Your task to perform on an android device: Open Google Chrome and open the bookmarks view Image 0: 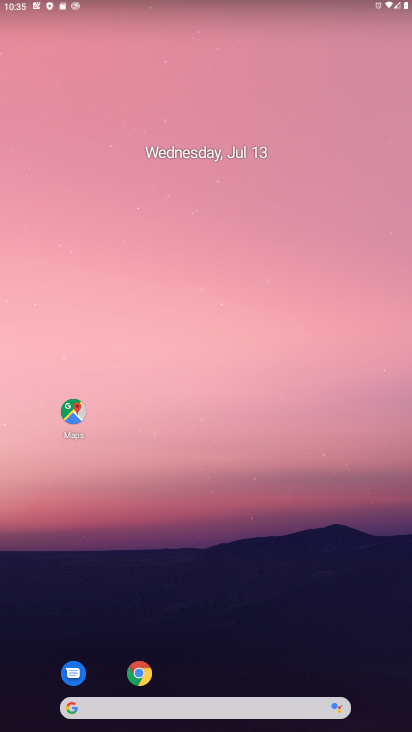
Step 0: click (140, 680)
Your task to perform on an android device: Open Google Chrome and open the bookmarks view Image 1: 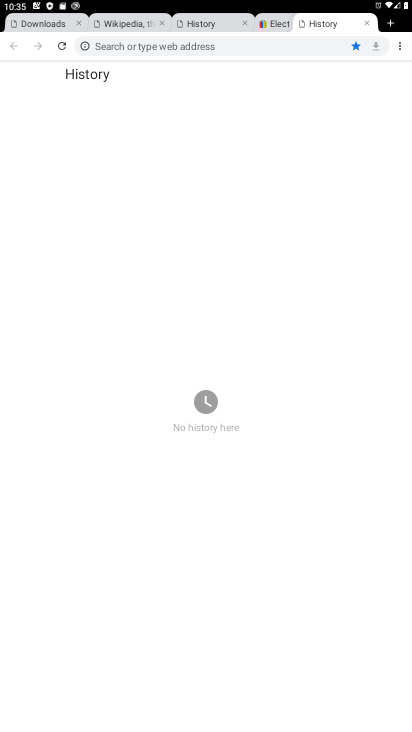
Step 1: click (402, 49)
Your task to perform on an android device: Open Google Chrome and open the bookmarks view Image 2: 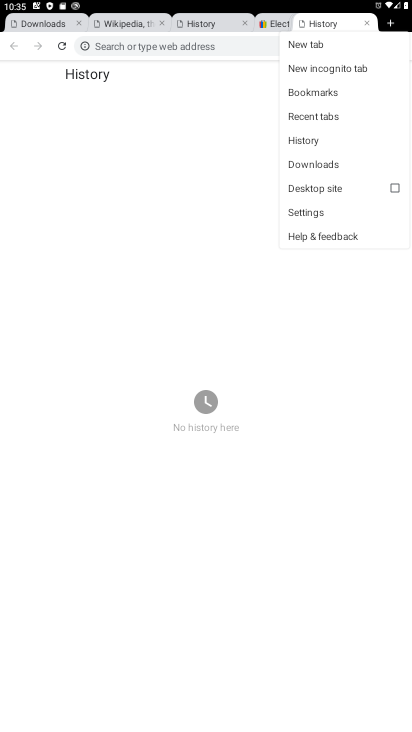
Step 2: click (348, 94)
Your task to perform on an android device: Open Google Chrome and open the bookmarks view Image 3: 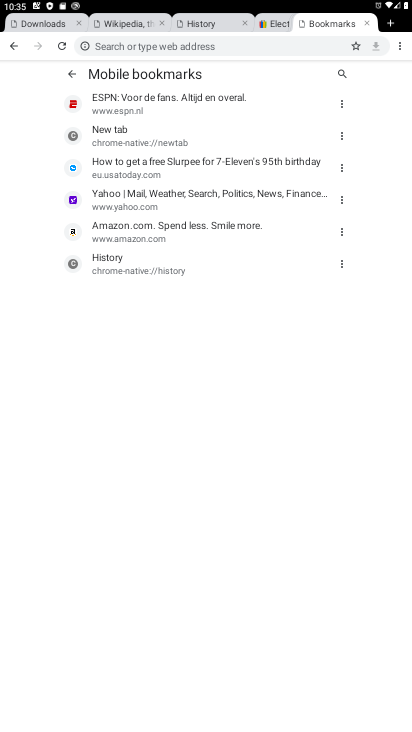
Step 3: task complete